Your task to perform on an android device: Open Maps and search for coffee Image 0: 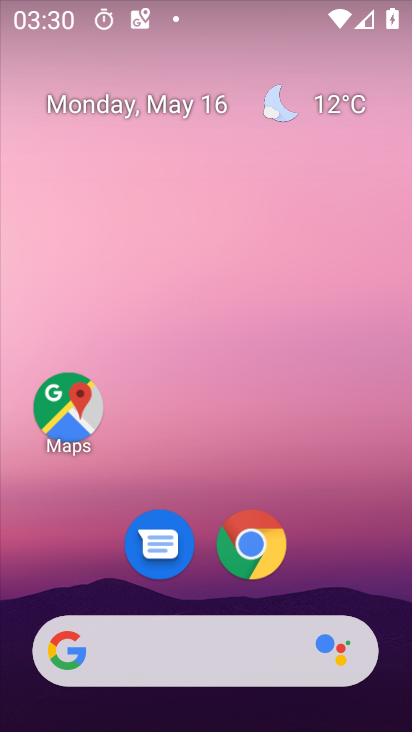
Step 0: drag from (205, 721) to (216, 102)
Your task to perform on an android device: Open Maps and search for coffee Image 1: 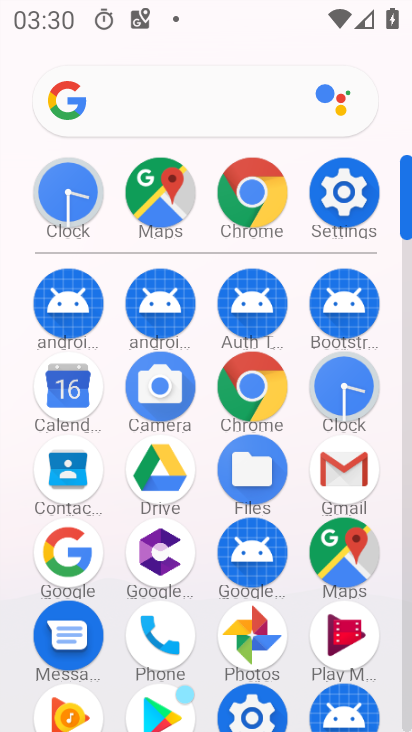
Step 1: click (345, 553)
Your task to perform on an android device: Open Maps and search for coffee Image 2: 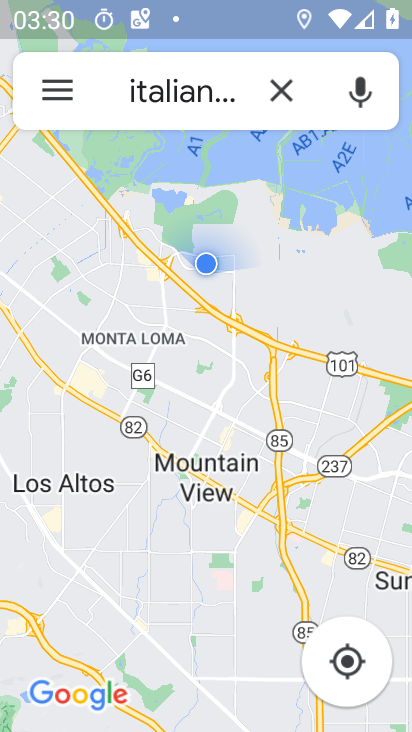
Step 2: click (274, 87)
Your task to perform on an android device: Open Maps and search for coffee Image 3: 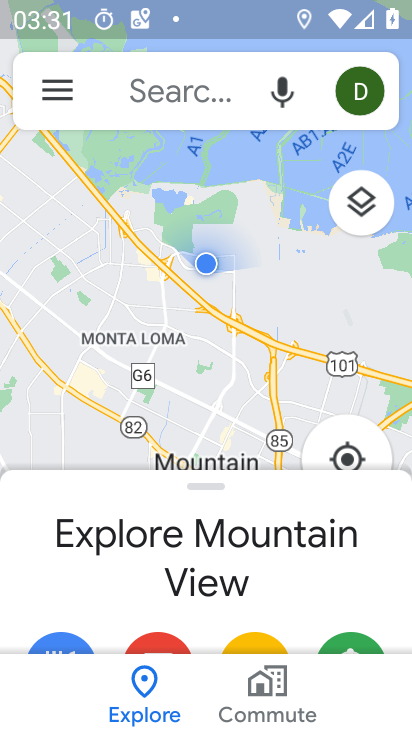
Step 3: click (178, 91)
Your task to perform on an android device: Open Maps and search for coffee Image 4: 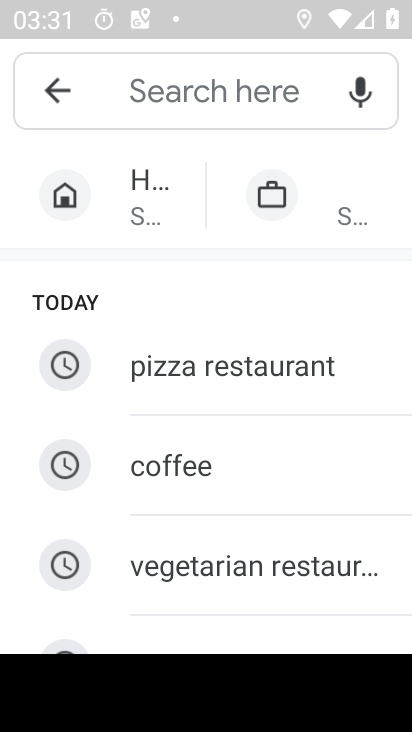
Step 4: type "coffee"
Your task to perform on an android device: Open Maps and search for coffee Image 5: 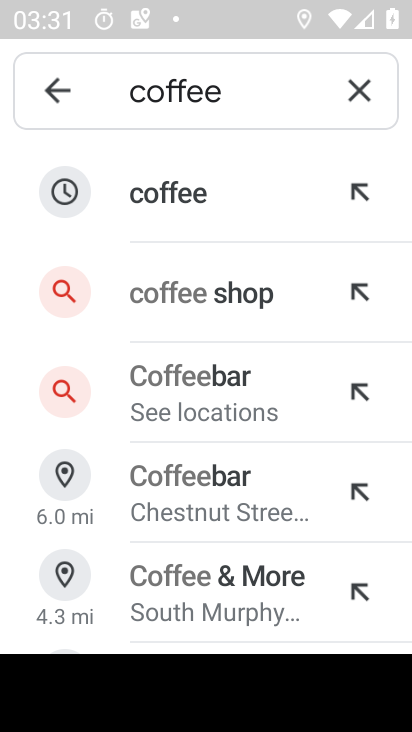
Step 5: click (168, 191)
Your task to perform on an android device: Open Maps and search for coffee Image 6: 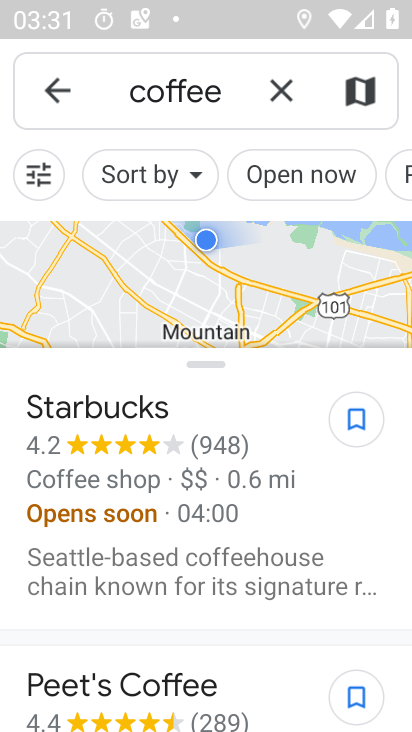
Step 6: task complete